Your task to perform on an android device: turn off notifications in google photos Image 0: 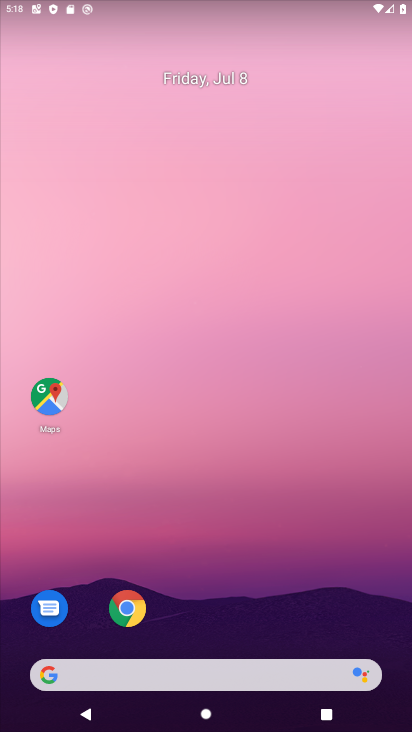
Step 0: press home button
Your task to perform on an android device: turn off notifications in google photos Image 1: 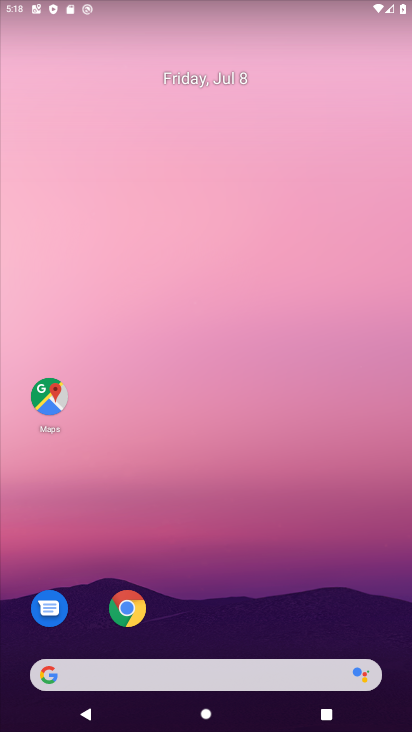
Step 1: drag from (304, 687) to (335, 47)
Your task to perform on an android device: turn off notifications in google photos Image 2: 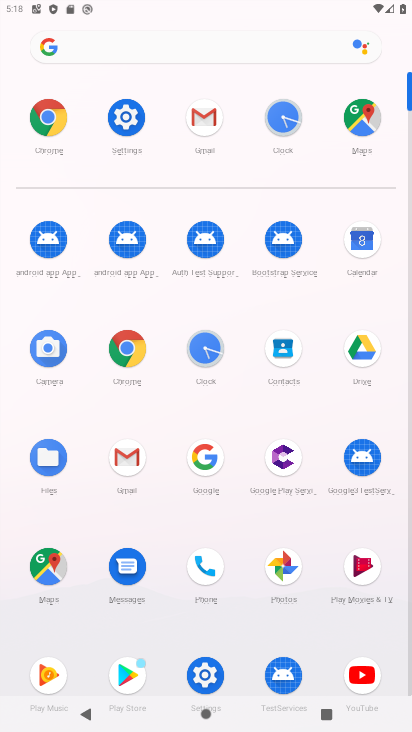
Step 2: click (296, 570)
Your task to perform on an android device: turn off notifications in google photos Image 3: 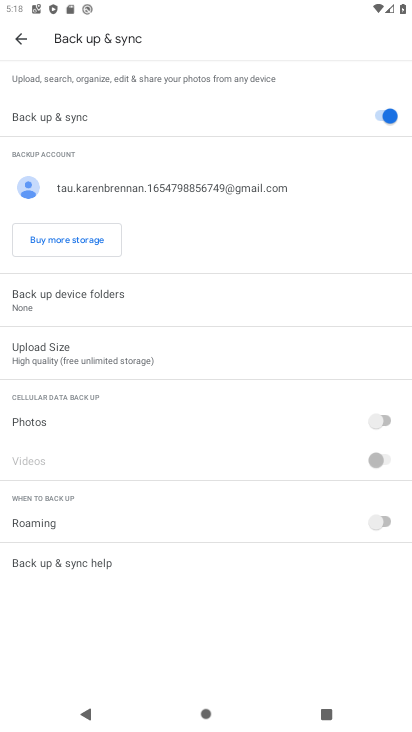
Step 3: press back button
Your task to perform on an android device: turn off notifications in google photos Image 4: 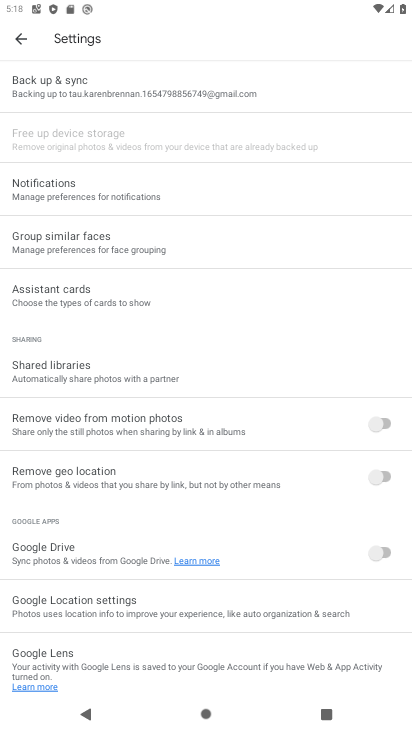
Step 4: click (76, 194)
Your task to perform on an android device: turn off notifications in google photos Image 5: 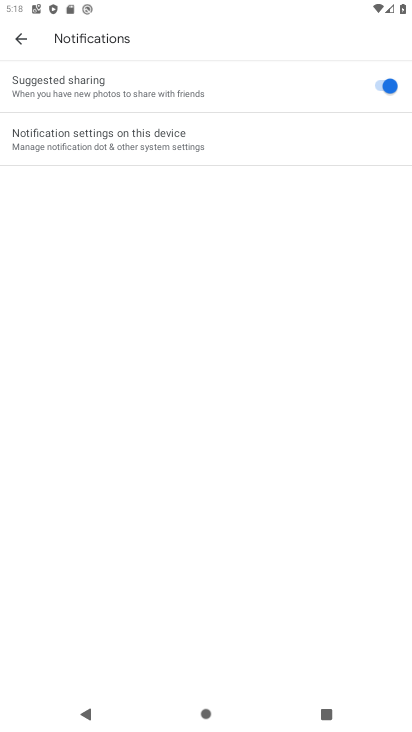
Step 5: click (325, 138)
Your task to perform on an android device: turn off notifications in google photos Image 6: 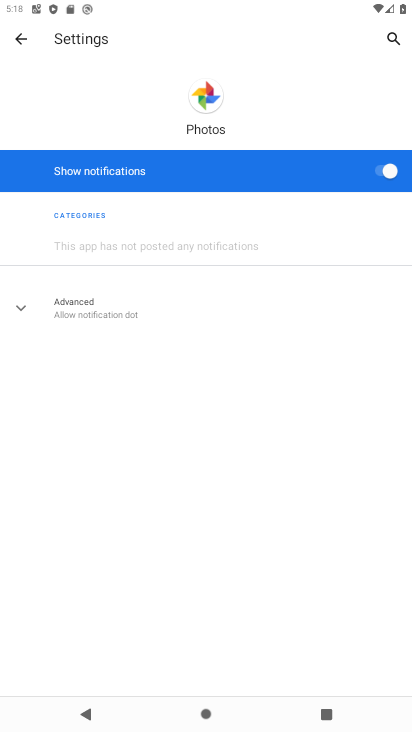
Step 6: click (382, 172)
Your task to perform on an android device: turn off notifications in google photos Image 7: 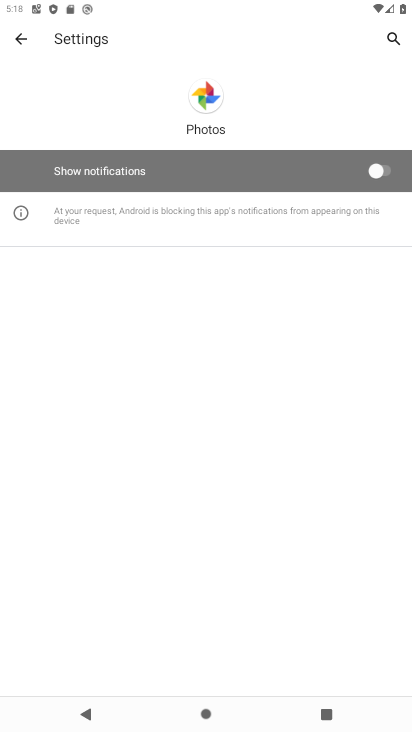
Step 7: task complete